Your task to perform on an android device: Search for bose quietcomfort 35 on costco, select the first entry, and add it to the cart. Image 0: 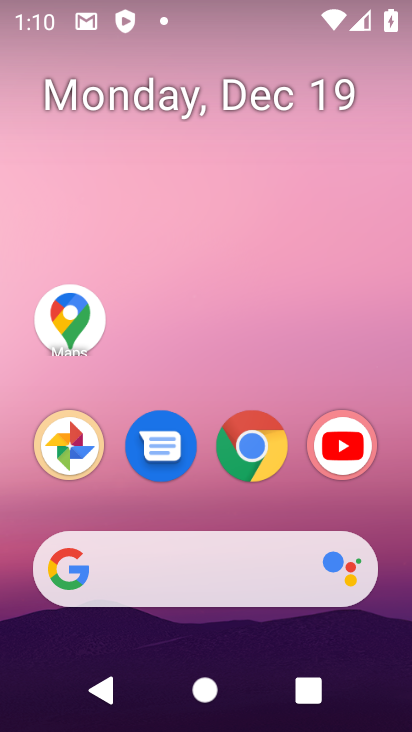
Step 0: click (257, 470)
Your task to perform on an android device: Search for bose quietcomfort 35 on costco, select the first entry, and add it to the cart. Image 1: 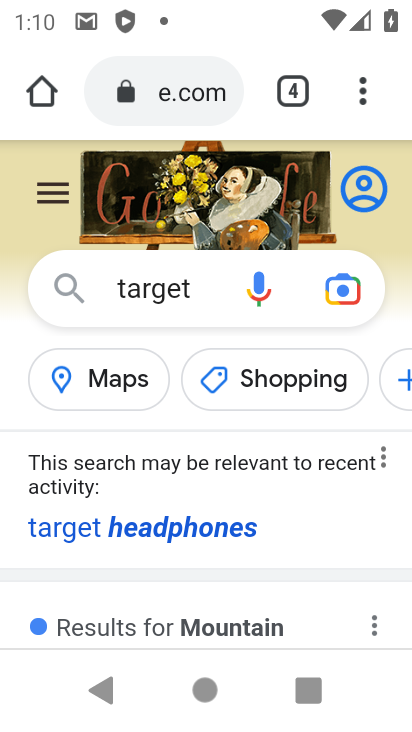
Step 1: drag from (148, 597) to (159, 138)
Your task to perform on an android device: Search for bose quietcomfort 35 on costco, select the first entry, and add it to the cart. Image 2: 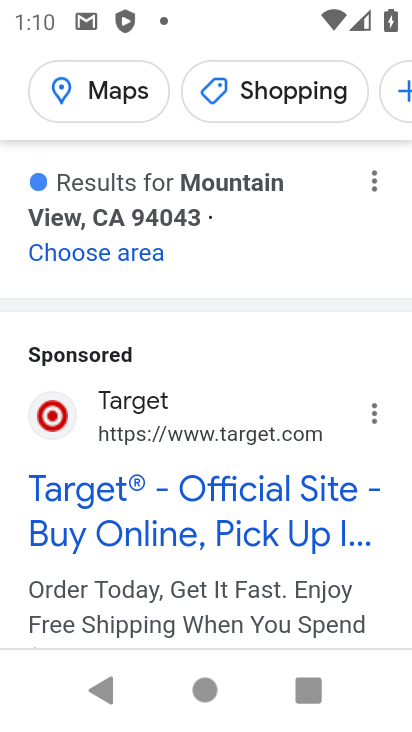
Step 2: drag from (206, 295) to (261, 711)
Your task to perform on an android device: Search for bose quietcomfort 35 on costco, select the first entry, and add it to the cart. Image 3: 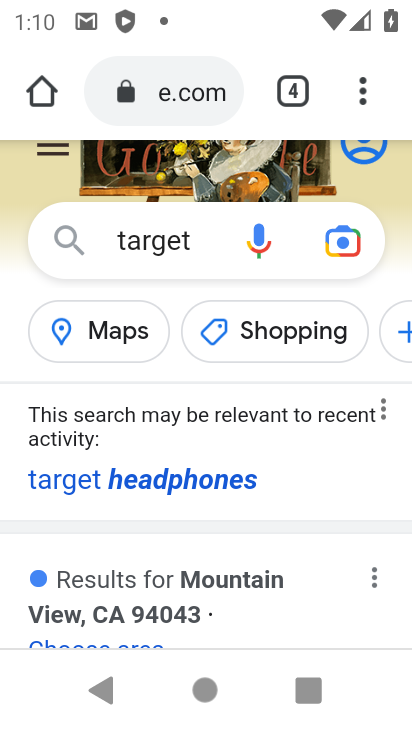
Step 3: click (197, 247)
Your task to perform on an android device: Search for bose quietcomfort 35 on costco, select the first entry, and add it to the cart. Image 4: 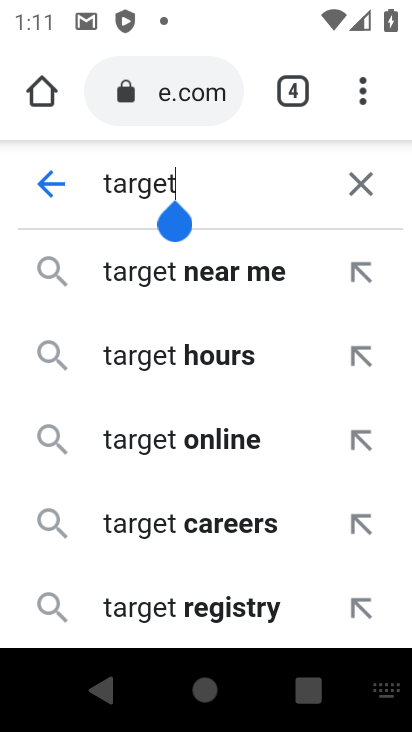
Step 4: click (352, 190)
Your task to perform on an android device: Search for bose quietcomfort 35 on costco, select the first entry, and add it to the cart. Image 5: 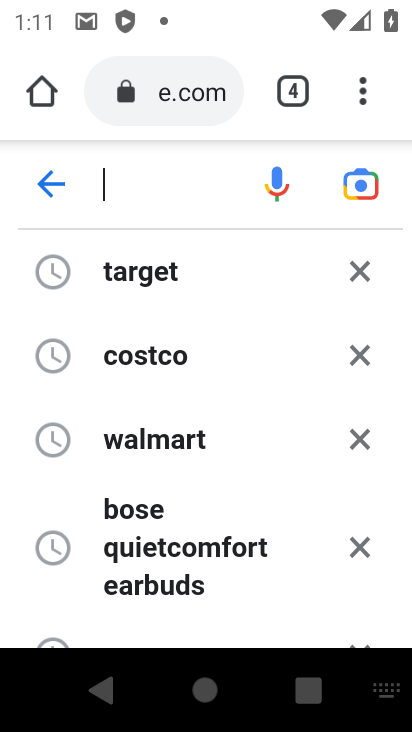
Step 5: click (192, 93)
Your task to perform on an android device: Search for bose quietcomfort 35 on costco, select the first entry, and add it to the cart. Image 6: 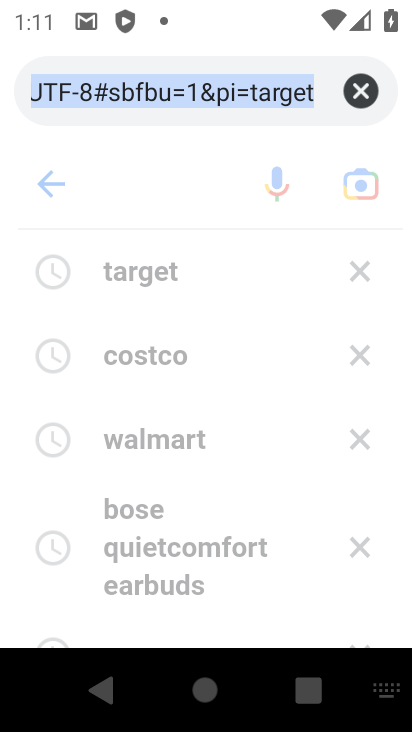
Step 6: type "costco.com"
Your task to perform on an android device: Search for bose quietcomfort 35 on costco, select the first entry, and add it to the cart. Image 7: 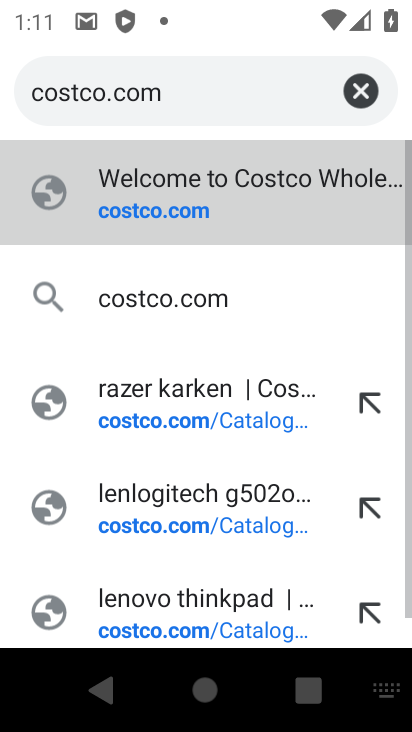
Step 7: click (188, 189)
Your task to perform on an android device: Search for bose quietcomfort 35 on costco, select the first entry, and add it to the cart. Image 8: 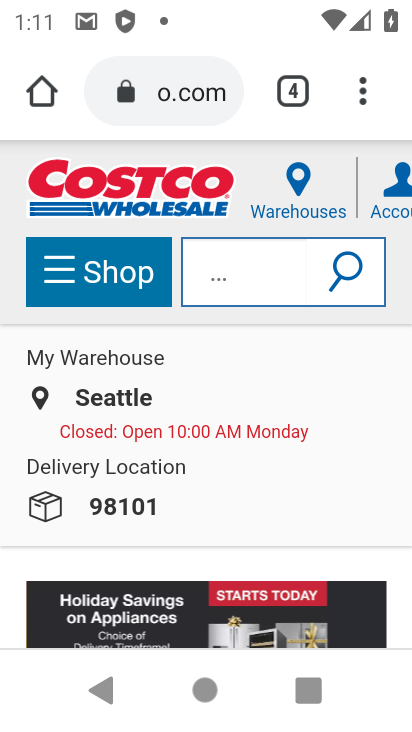
Step 8: click (271, 273)
Your task to perform on an android device: Search for bose quietcomfort 35 on costco, select the first entry, and add it to the cart. Image 9: 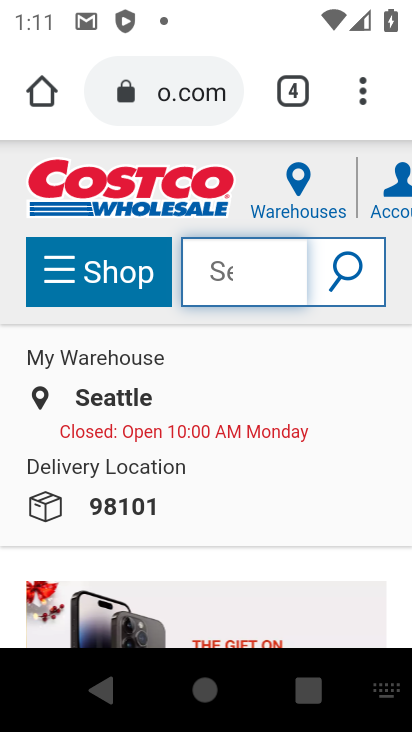
Step 9: type "bose comfort 35"
Your task to perform on an android device: Search for bose quietcomfort 35 on costco, select the first entry, and add it to the cart. Image 10: 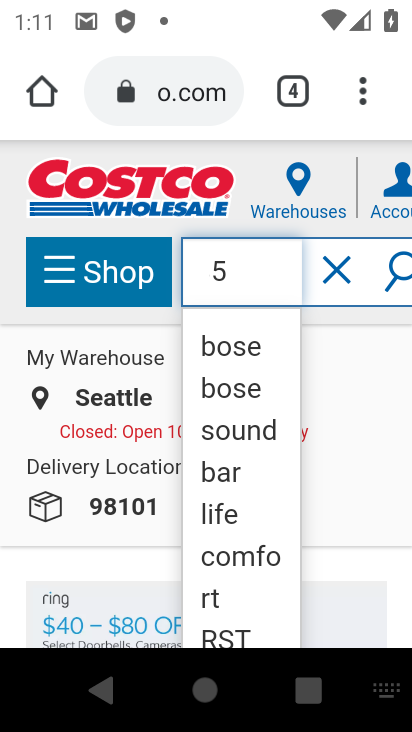
Step 10: click (395, 269)
Your task to perform on an android device: Search for bose quietcomfort 35 on costco, select the first entry, and add it to the cart. Image 11: 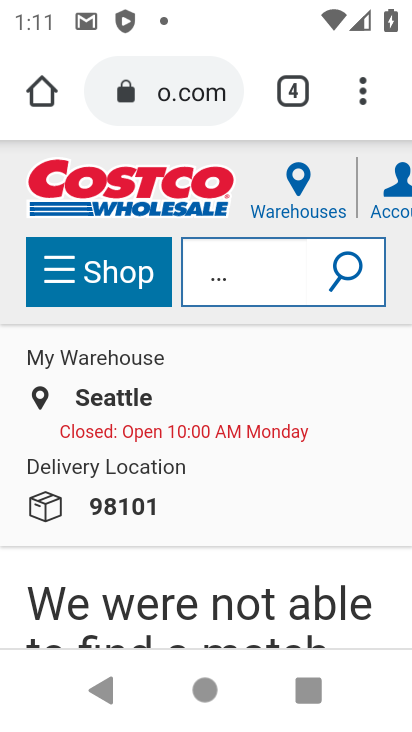
Step 11: drag from (211, 492) to (219, 159)
Your task to perform on an android device: Search for bose quietcomfort 35 on costco, select the first entry, and add it to the cart. Image 12: 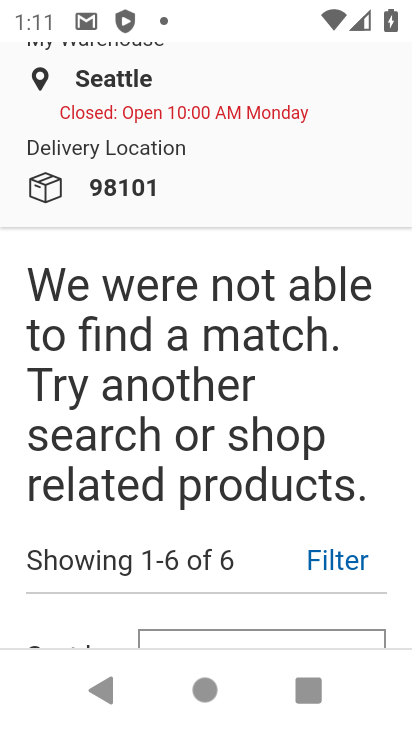
Step 12: drag from (237, 560) to (248, 248)
Your task to perform on an android device: Search for bose quietcomfort 35 on costco, select the first entry, and add it to the cart. Image 13: 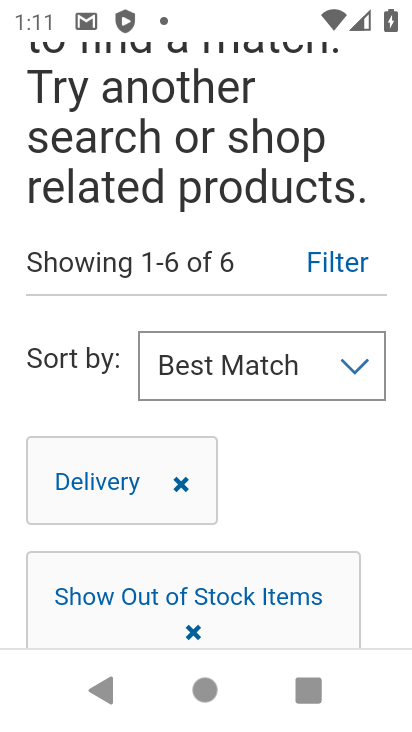
Step 13: drag from (270, 511) to (299, 170)
Your task to perform on an android device: Search for bose quietcomfort 35 on costco, select the first entry, and add it to the cart. Image 14: 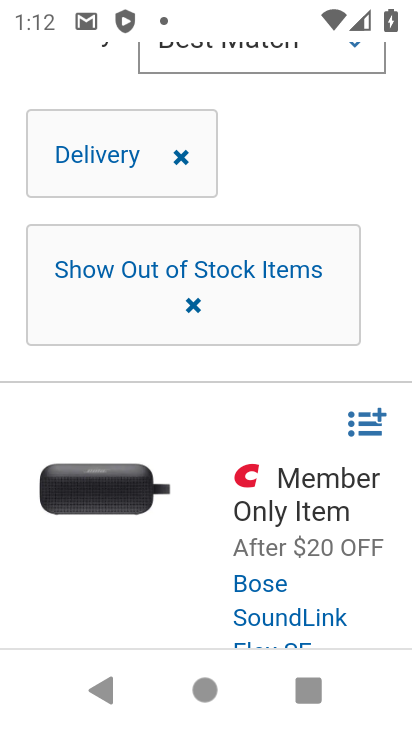
Step 14: click (274, 584)
Your task to perform on an android device: Search for bose quietcomfort 35 on costco, select the first entry, and add it to the cart. Image 15: 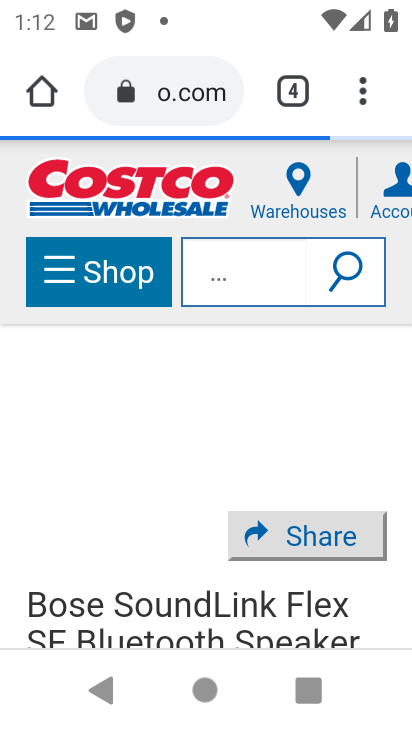
Step 15: task complete